Your task to perform on an android device: Turn on the flashlight Image 0: 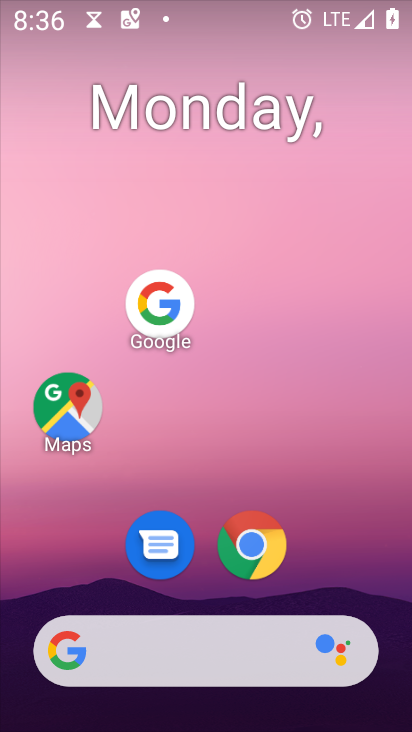
Step 0: drag from (227, 5) to (260, 407)
Your task to perform on an android device: Turn on the flashlight Image 1: 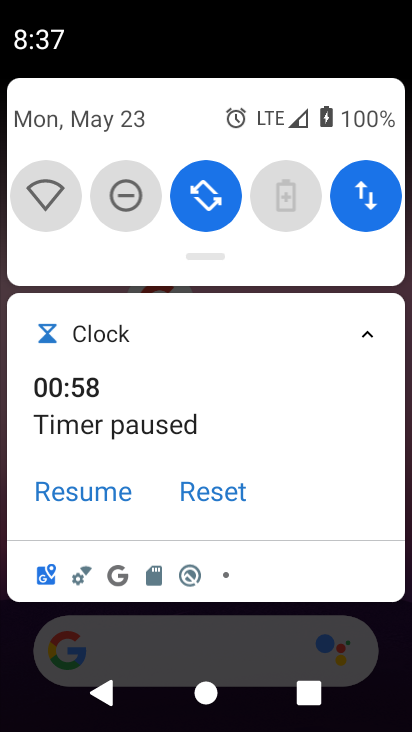
Step 1: task complete